Your task to perform on an android device: turn off improve location accuracy Image 0: 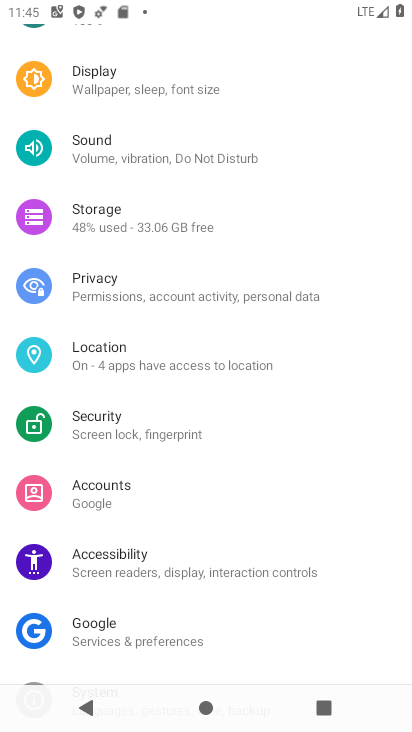
Step 0: press home button
Your task to perform on an android device: turn off improve location accuracy Image 1: 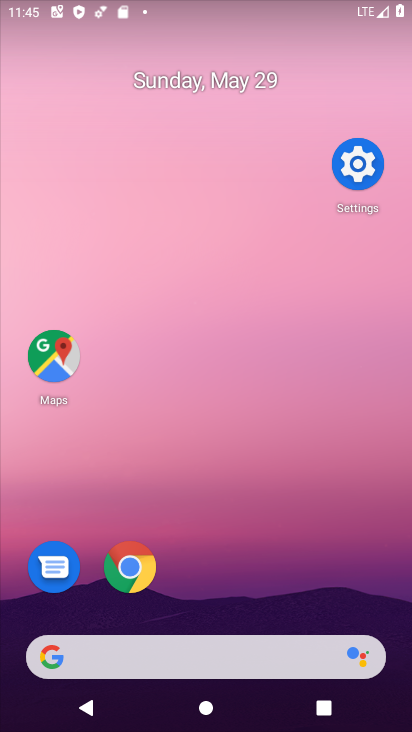
Step 1: drag from (352, 595) to (318, 162)
Your task to perform on an android device: turn off improve location accuracy Image 2: 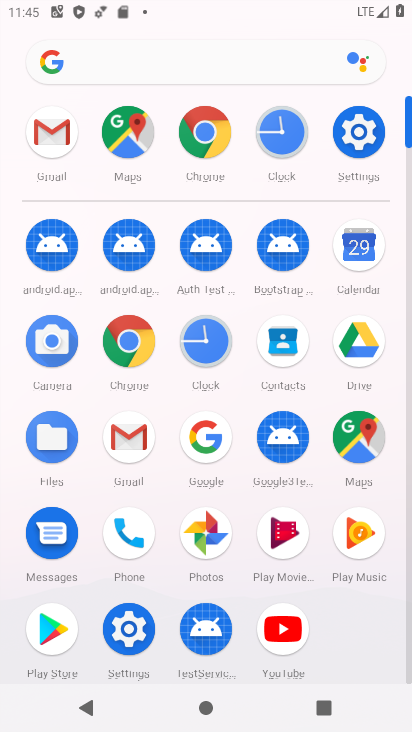
Step 2: click (361, 132)
Your task to perform on an android device: turn off improve location accuracy Image 3: 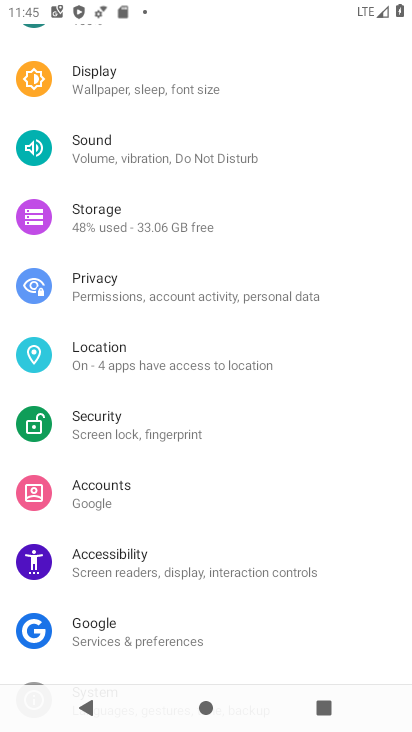
Step 3: click (227, 357)
Your task to perform on an android device: turn off improve location accuracy Image 4: 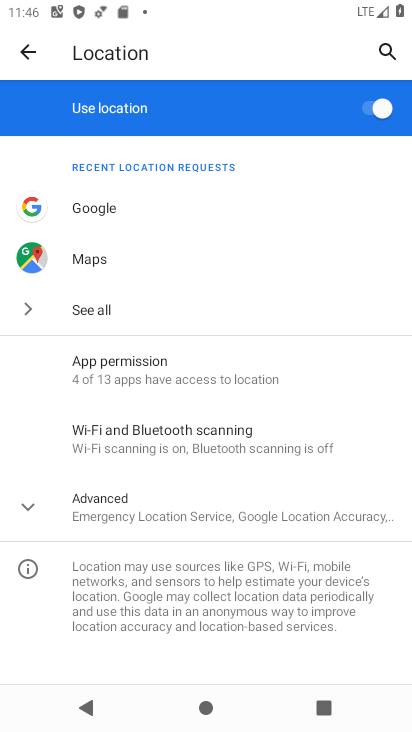
Step 4: click (246, 515)
Your task to perform on an android device: turn off improve location accuracy Image 5: 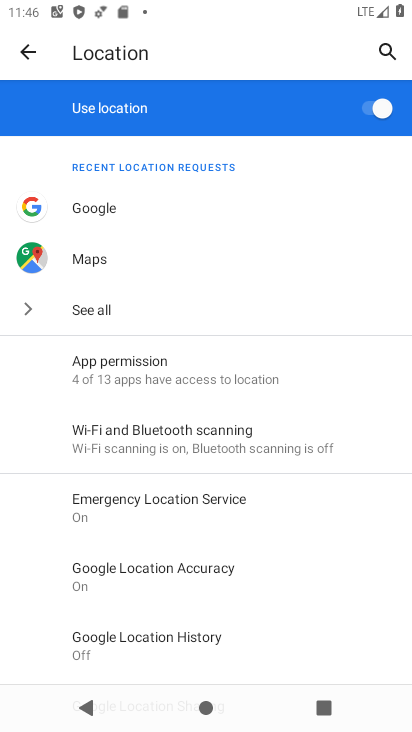
Step 5: click (168, 574)
Your task to perform on an android device: turn off improve location accuracy Image 6: 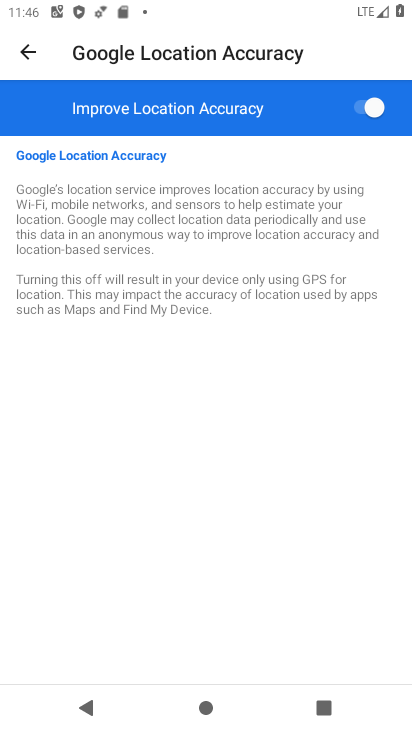
Step 6: click (366, 111)
Your task to perform on an android device: turn off improve location accuracy Image 7: 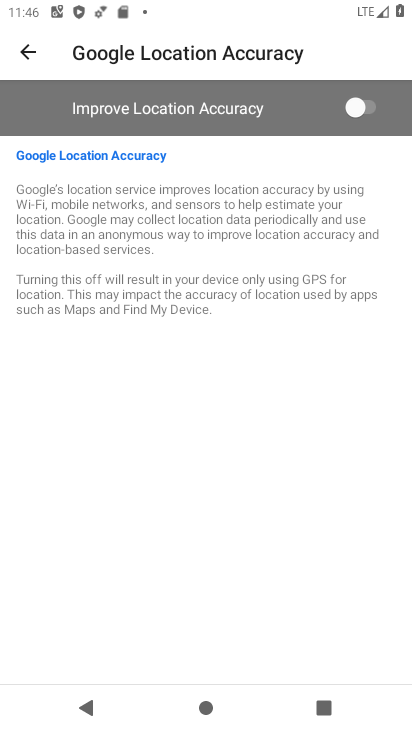
Step 7: task complete